Your task to perform on an android device: add a contact Image 0: 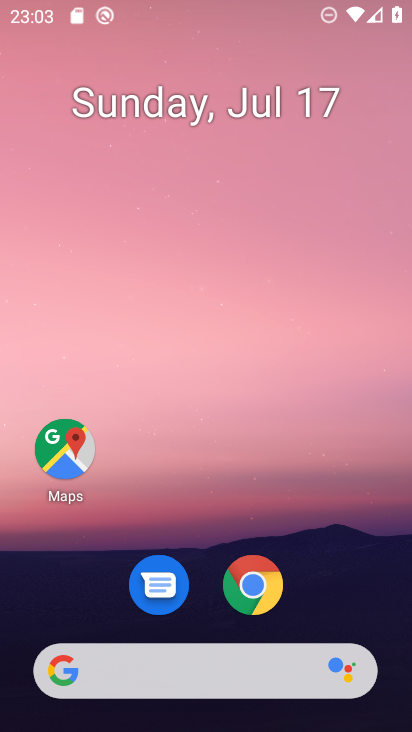
Step 0: press home button
Your task to perform on an android device: add a contact Image 1: 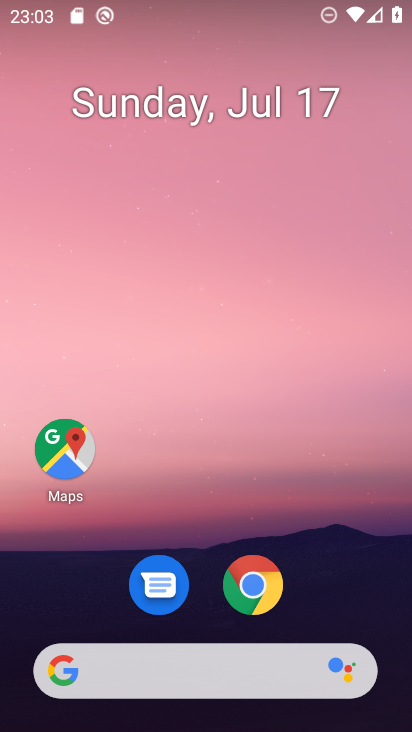
Step 1: drag from (162, 671) to (299, 37)
Your task to perform on an android device: add a contact Image 2: 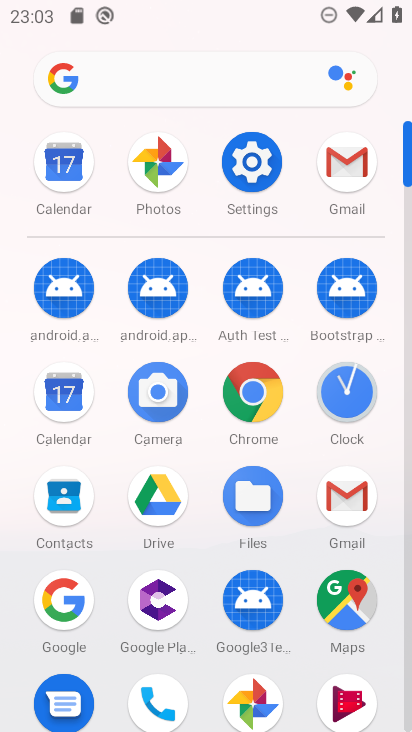
Step 2: click (47, 500)
Your task to perform on an android device: add a contact Image 3: 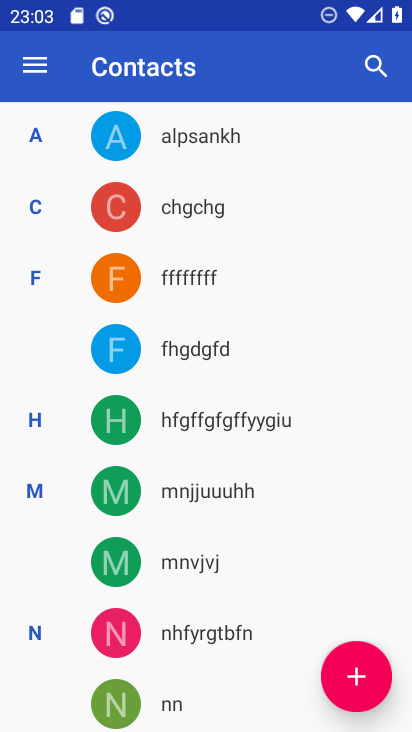
Step 3: click (365, 666)
Your task to perform on an android device: add a contact Image 4: 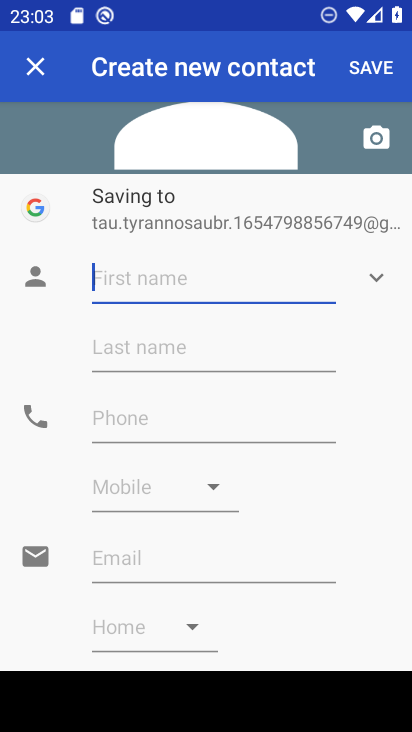
Step 4: type "nbhyuujhh"
Your task to perform on an android device: add a contact Image 5: 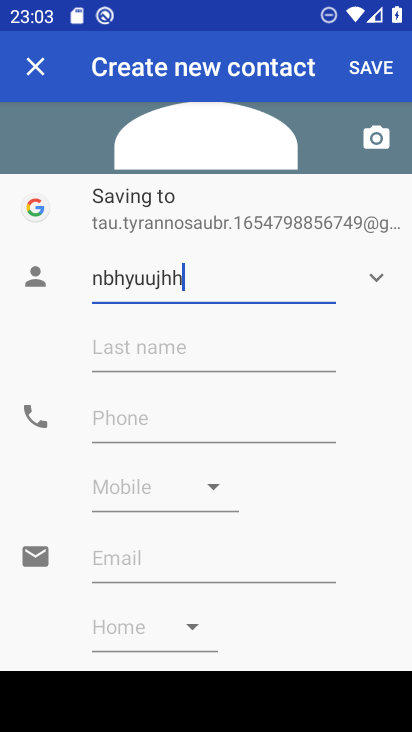
Step 5: click (114, 411)
Your task to perform on an android device: add a contact Image 6: 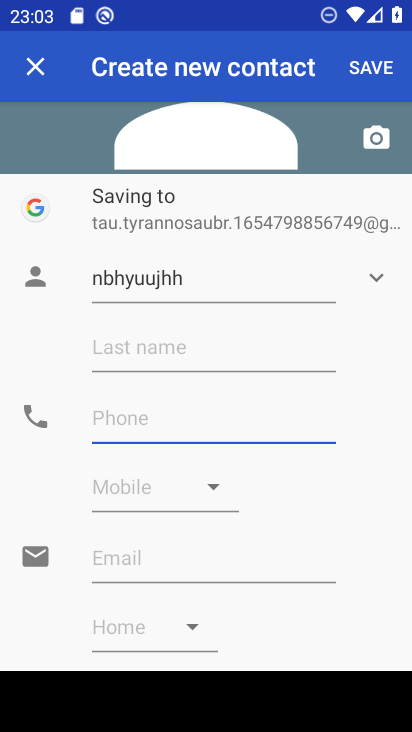
Step 6: type "879987666"
Your task to perform on an android device: add a contact Image 7: 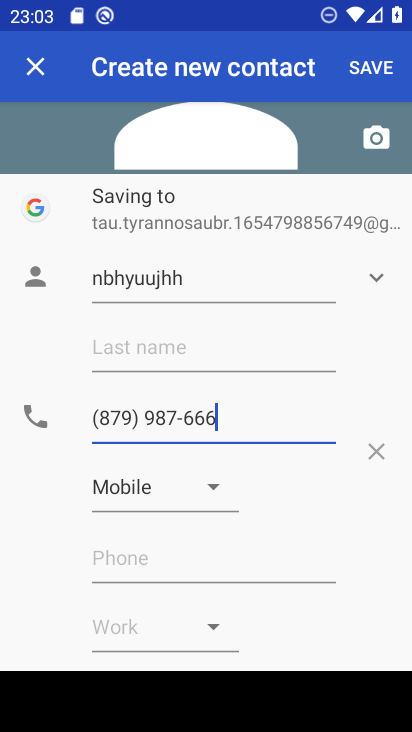
Step 7: click (365, 75)
Your task to perform on an android device: add a contact Image 8: 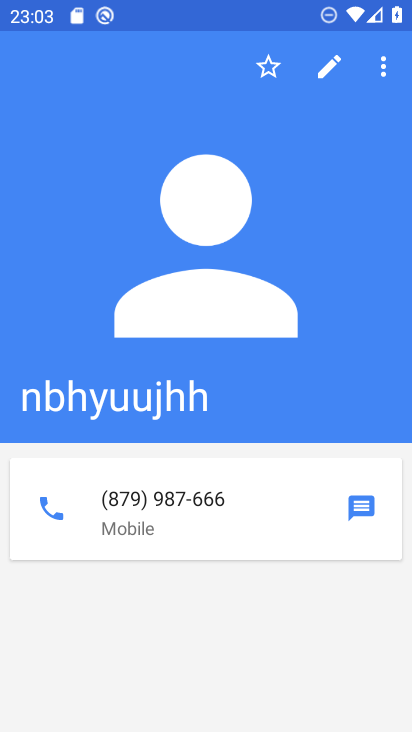
Step 8: task complete